Your task to perform on an android device: Open Wikipedia Image 0: 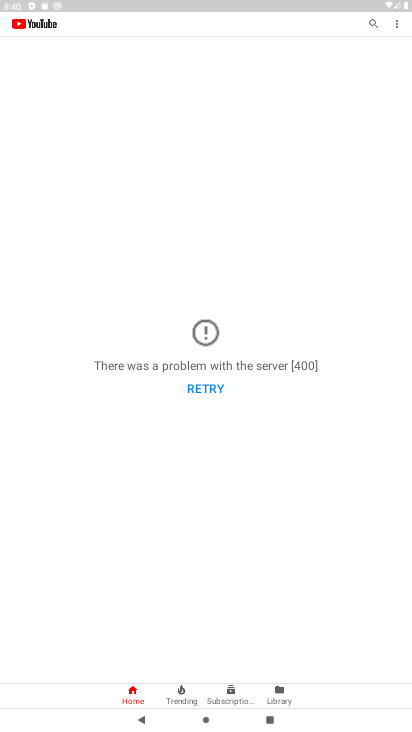
Step 0: press home button
Your task to perform on an android device: Open Wikipedia Image 1: 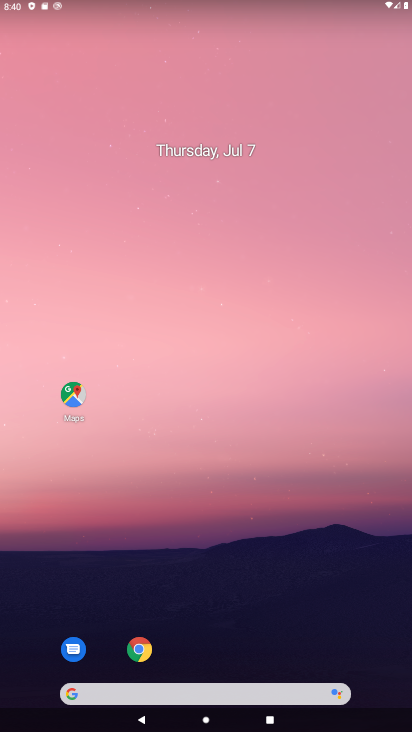
Step 1: click (144, 655)
Your task to perform on an android device: Open Wikipedia Image 2: 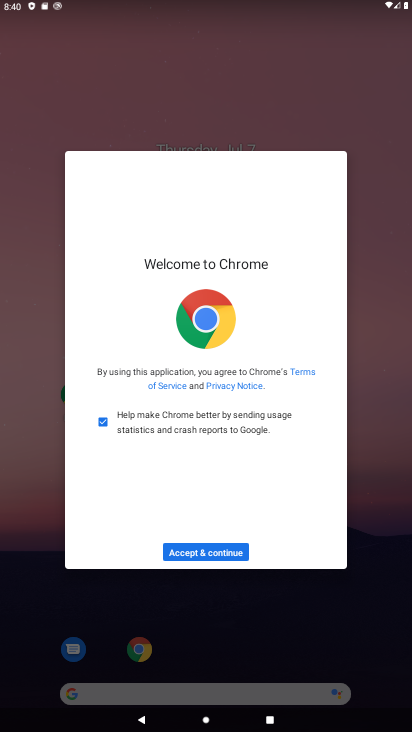
Step 2: click (223, 560)
Your task to perform on an android device: Open Wikipedia Image 3: 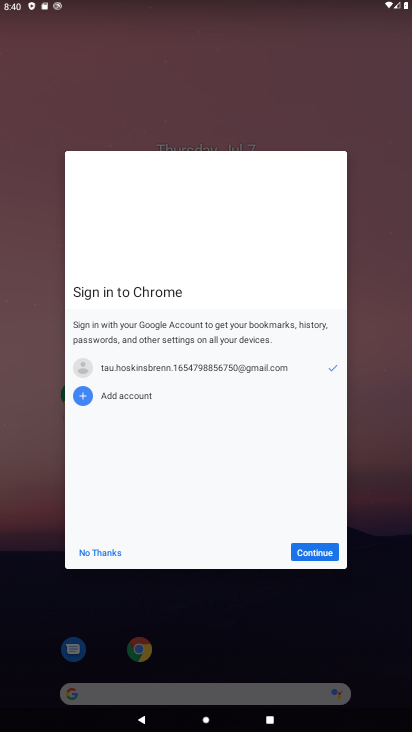
Step 3: click (316, 548)
Your task to perform on an android device: Open Wikipedia Image 4: 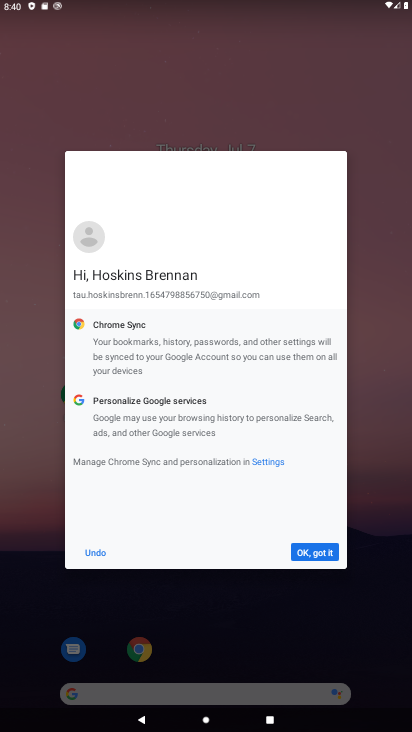
Step 4: click (313, 552)
Your task to perform on an android device: Open Wikipedia Image 5: 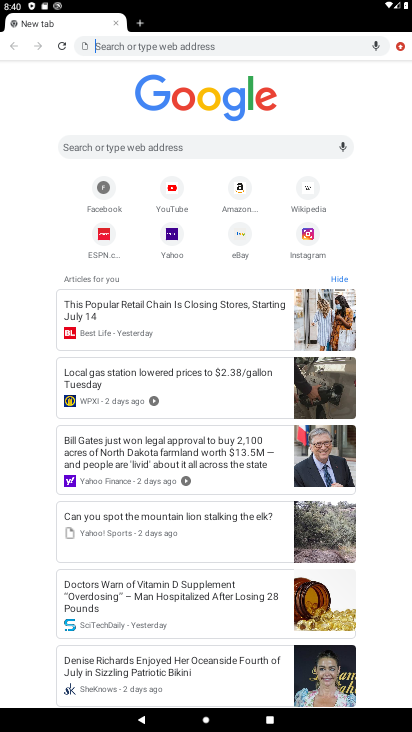
Step 5: click (307, 181)
Your task to perform on an android device: Open Wikipedia Image 6: 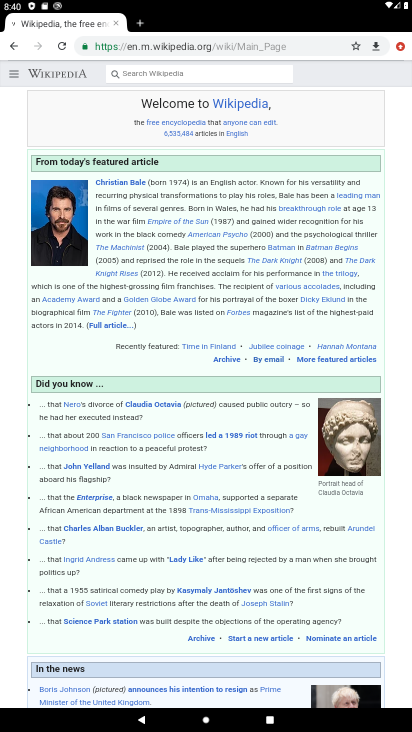
Step 6: task complete